Your task to perform on an android device: turn on showing notifications on the lock screen Image 0: 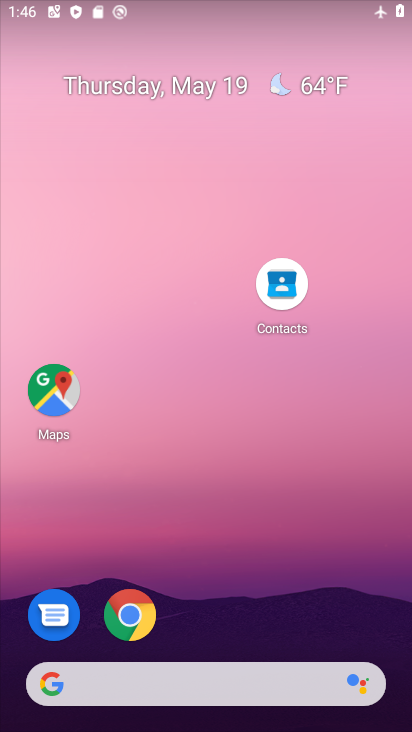
Step 0: drag from (207, 425) to (233, 199)
Your task to perform on an android device: turn on showing notifications on the lock screen Image 1: 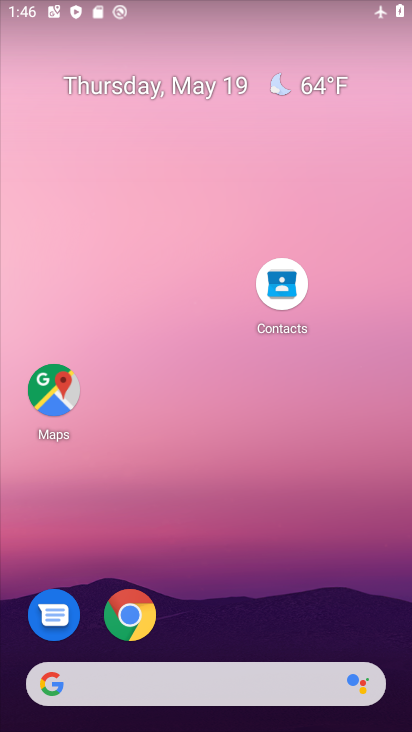
Step 1: drag from (224, 612) to (229, 358)
Your task to perform on an android device: turn on showing notifications on the lock screen Image 2: 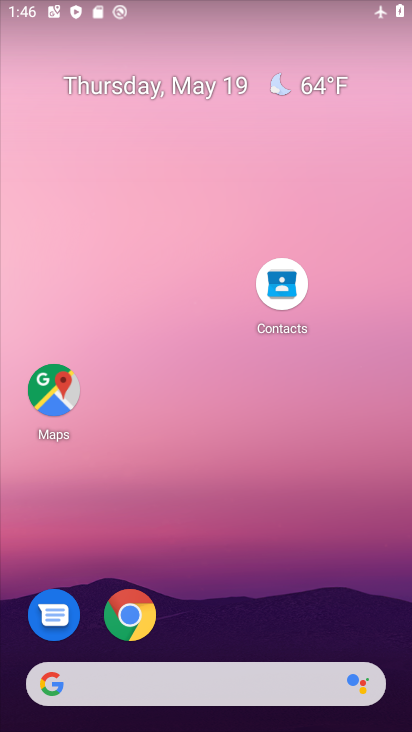
Step 2: drag from (241, 554) to (230, 143)
Your task to perform on an android device: turn on showing notifications on the lock screen Image 3: 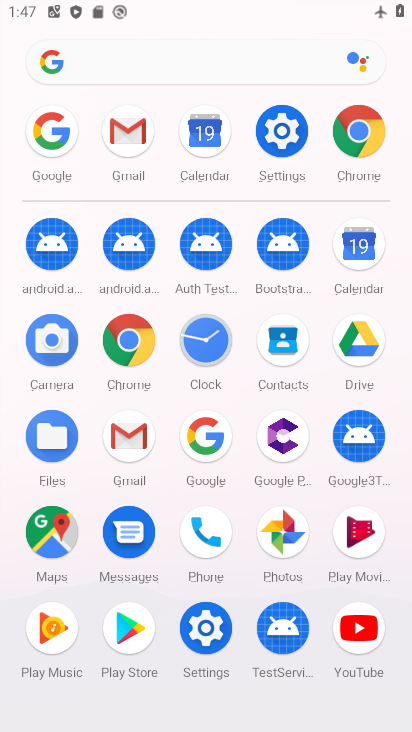
Step 3: click (286, 161)
Your task to perform on an android device: turn on showing notifications on the lock screen Image 4: 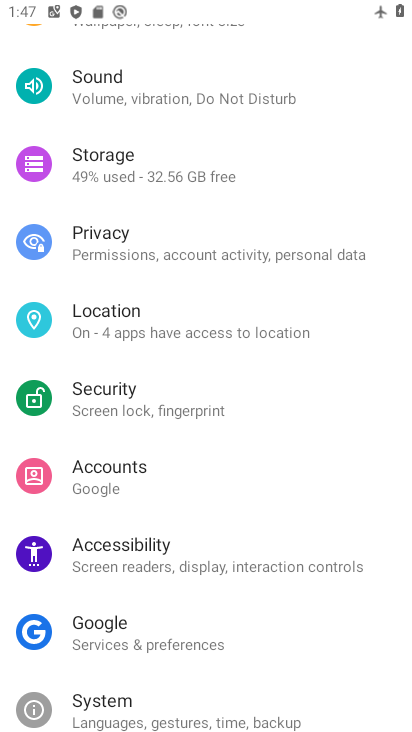
Step 4: drag from (181, 331) to (100, 723)
Your task to perform on an android device: turn on showing notifications on the lock screen Image 5: 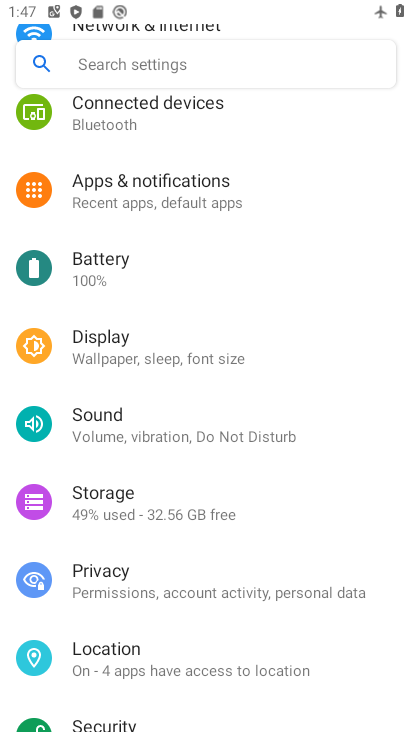
Step 5: click (166, 202)
Your task to perform on an android device: turn on showing notifications on the lock screen Image 6: 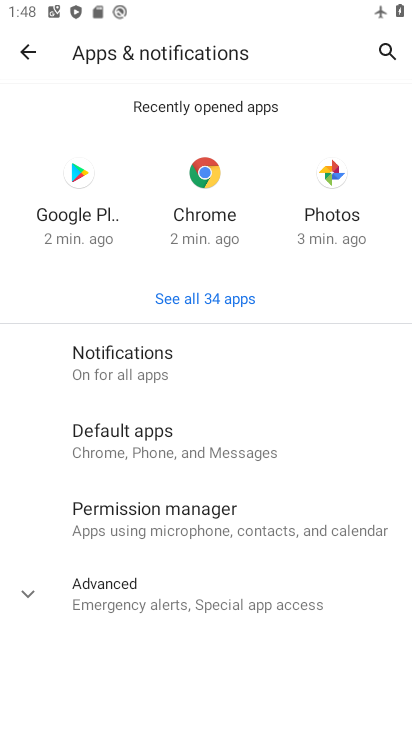
Step 6: click (178, 375)
Your task to perform on an android device: turn on showing notifications on the lock screen Image 7: 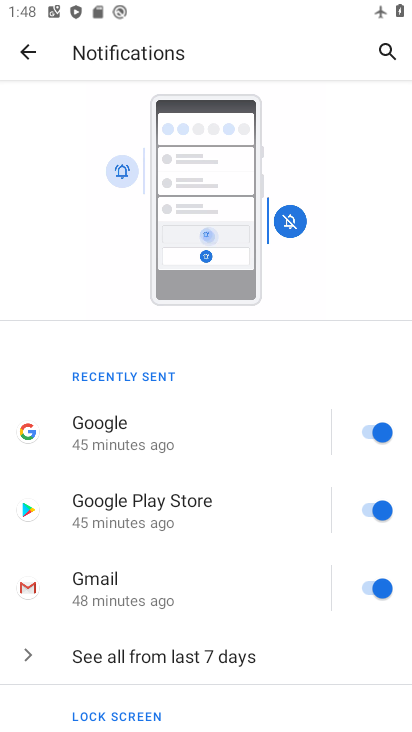
Step 7: drag from (100, 429) to (116, 118)
Your task to perform on an android device: turn on showing notifications on the lock screen Image 8: 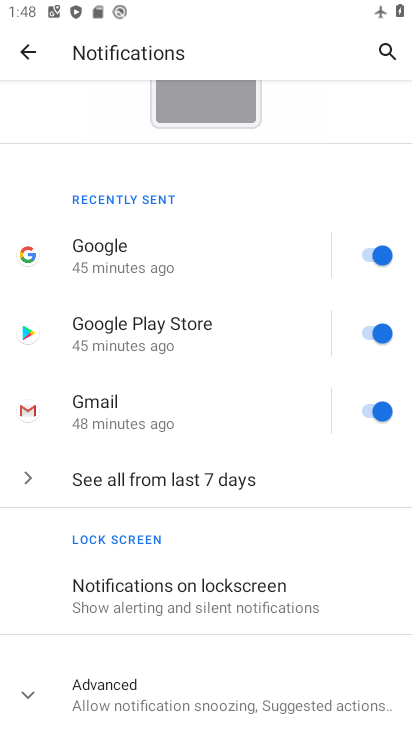
Step 8: click (148, 599)
Your task to perform on an android device: turn on showing notifications on the lock screen Image 9: 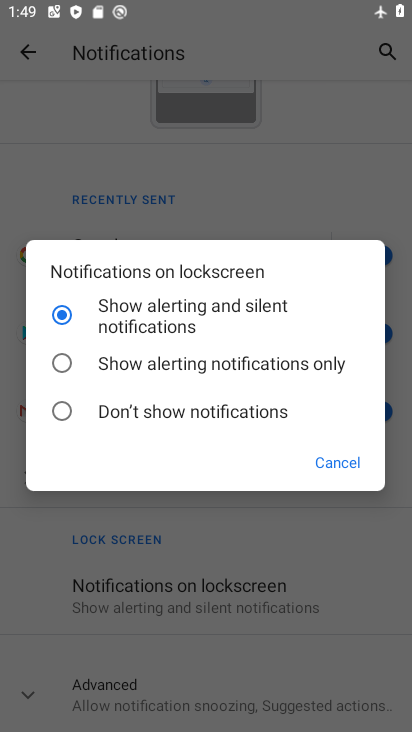
Step 9: task complete